Your task to perform on an android device: change timer sound Image 0: 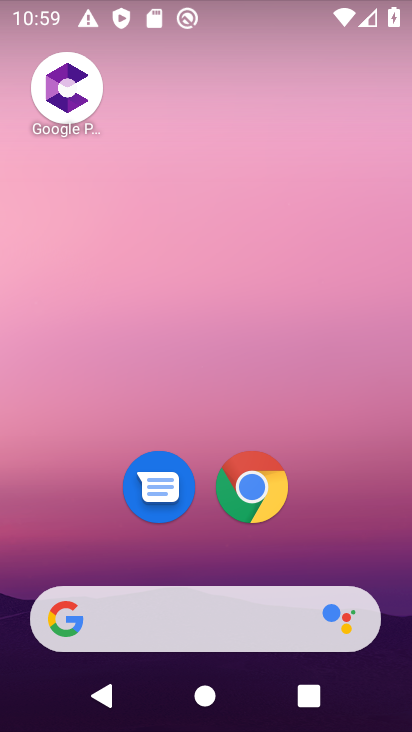
Step 0: drag from (363, 562) to (344, 1)
Your task to perform on an android device: change timer sound Image 1: 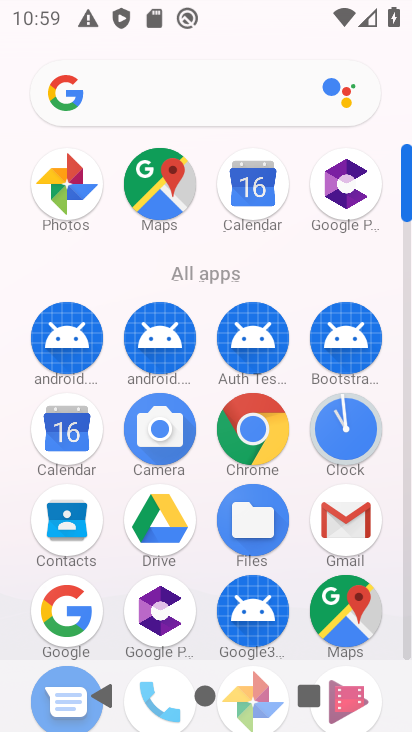
Step 1: click (352, 437)
Your task to perform on an android device: change timer sound Image 2: 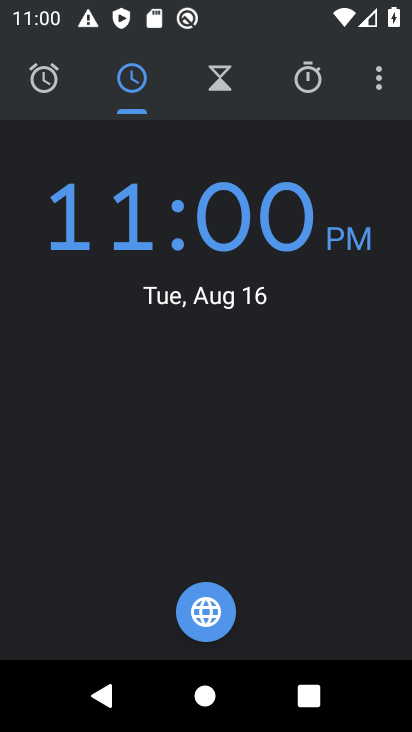
Step 2: click (383, 93)
Your task to perform on an android device: change timer sound Image 3: 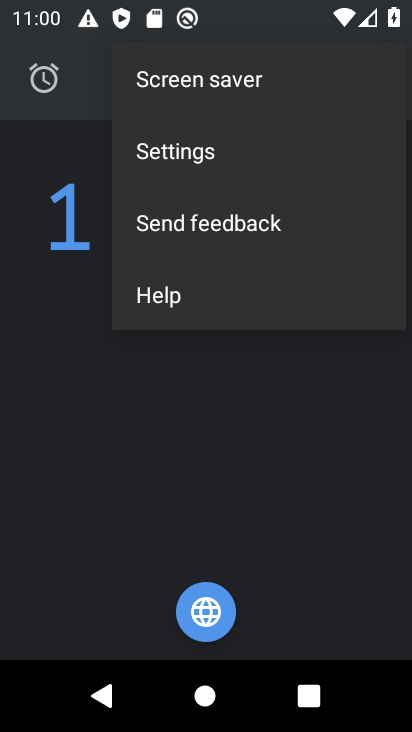
Step 3: click (239, 151)
Your task to perform on an android device: change timer sound Image 4: 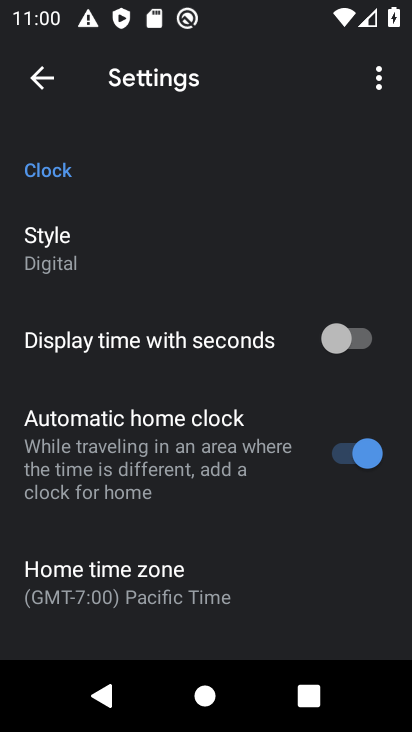
Step 4: drag from (301, 554) to (261, 160)
Your task to perform on an android device: change timer sound Image 5: 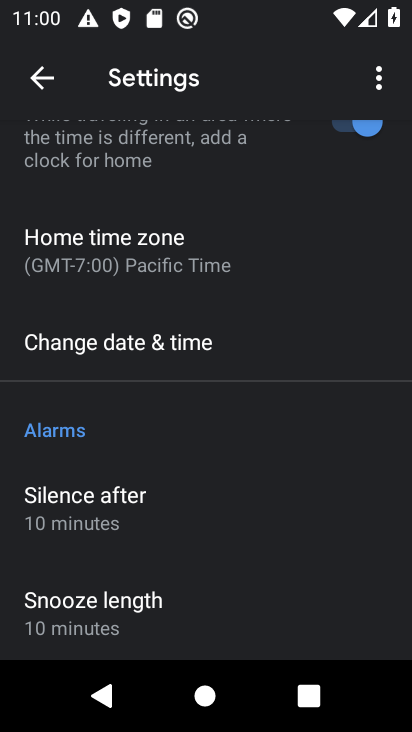
Step 5: drag from (226, 500) to (190, 259)
Your task to perform on an android device: change timer sound Image 6: 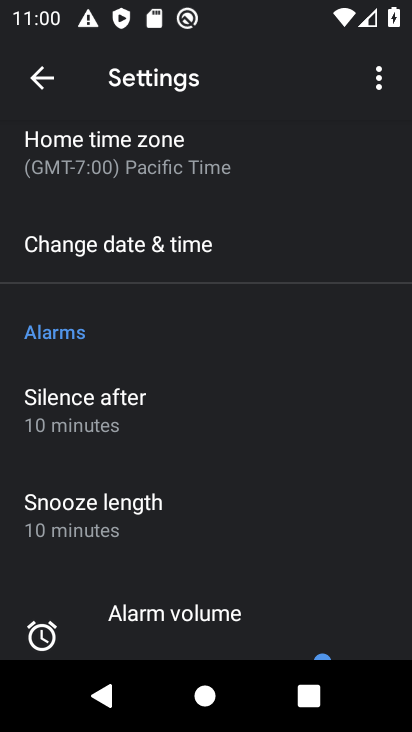
Step 6: drag from (204, 465) to (221, 155)
Your task to perform on an android device: change timer sound Image 7: 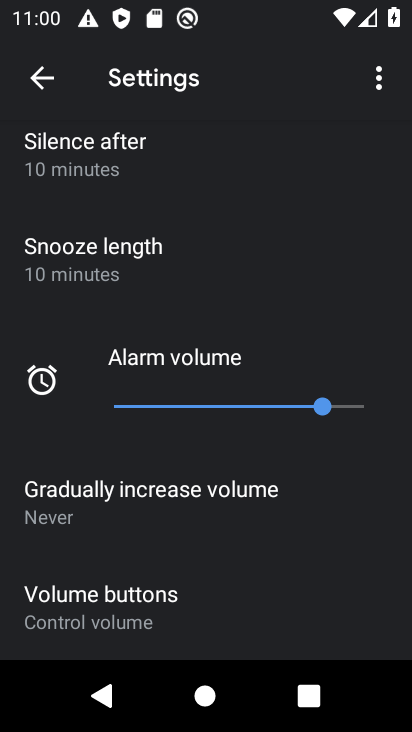
Step 7: drag from (234, 597) to (214, 379)
Your task to perform on an android device: change timer sound Image 8: 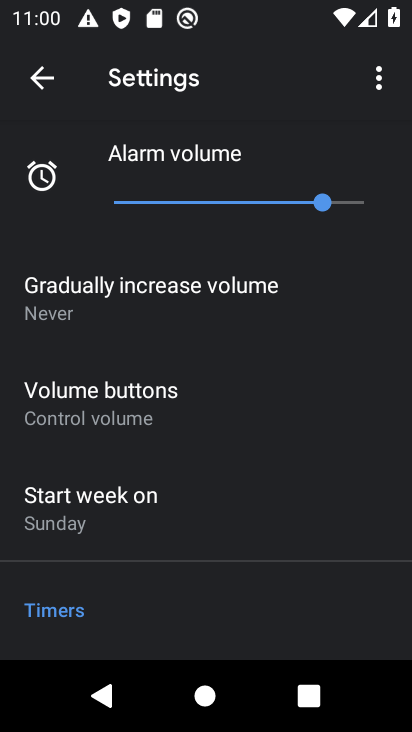
Step 8: drag from (239, 576) to (248, 319)
Your task to perform on an android device: change timer sound Image 9: 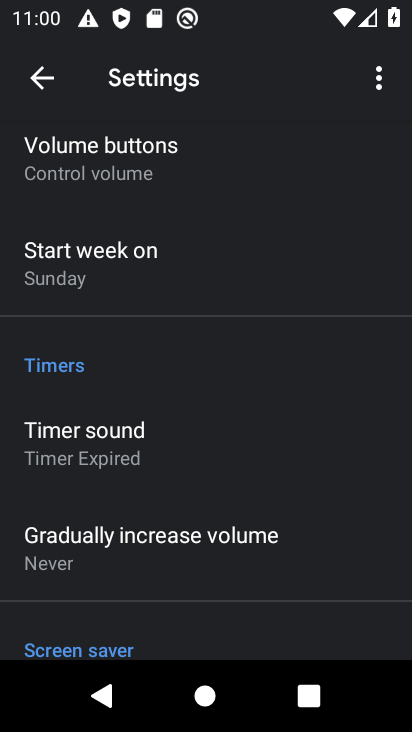
Step 9: click (135, 429)
Your task to perform on an android device: change timer sound Image 10: 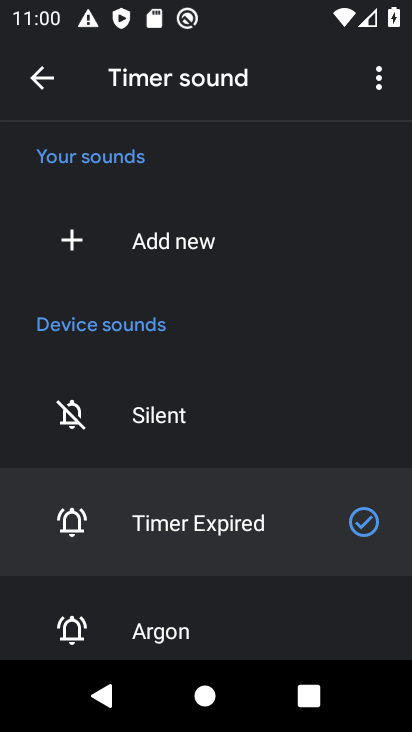
Step 10: click (241, 609)
Your task to perform on an android device: change timer sound Image 11: 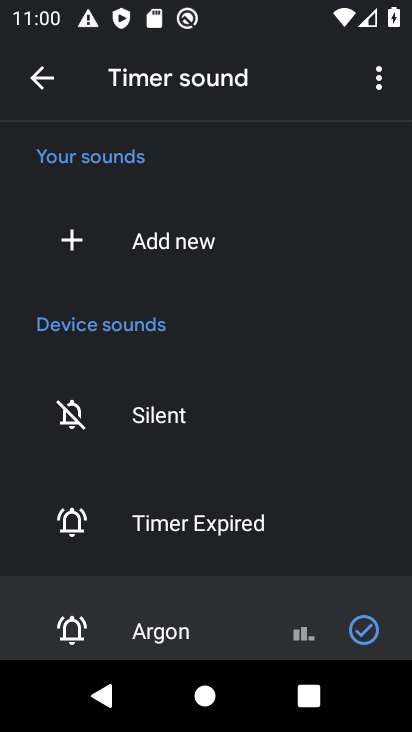
Step 11: task complete